Your task to perform on an android device: change alarm snooze length Image 0: 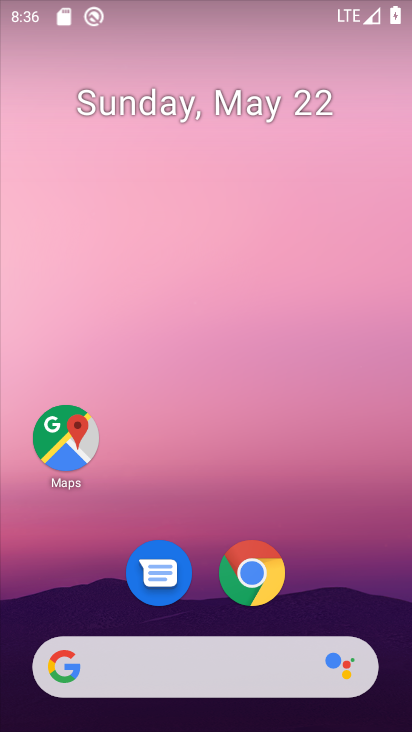
Step 0: click (393, 36)
Your task to perform on an android device: change alarm snooze length Image 1: 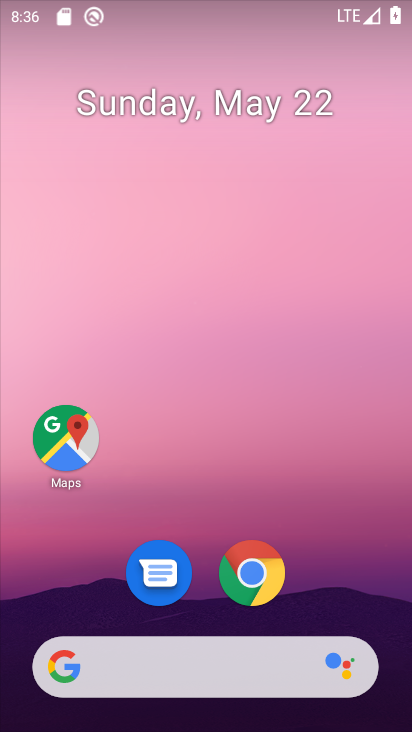
Step 1: drag from (203, 617) to (235, 43)
Your task to perform on an android device: change alarm snooze length Image 2: 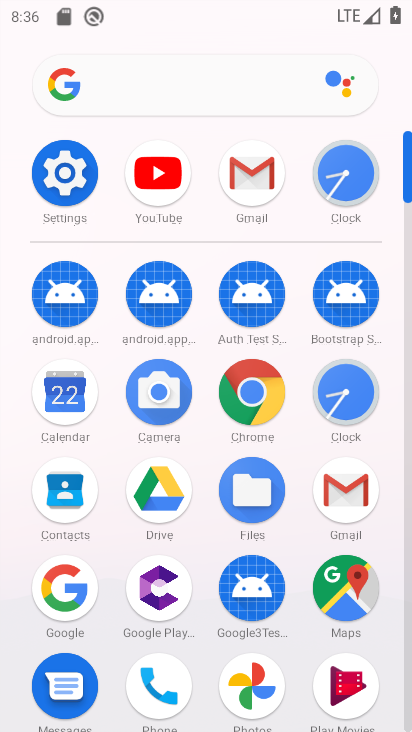
Step 2: click (316, 362)
Your task to perform on an android device: change alarm snooze length Image 3: 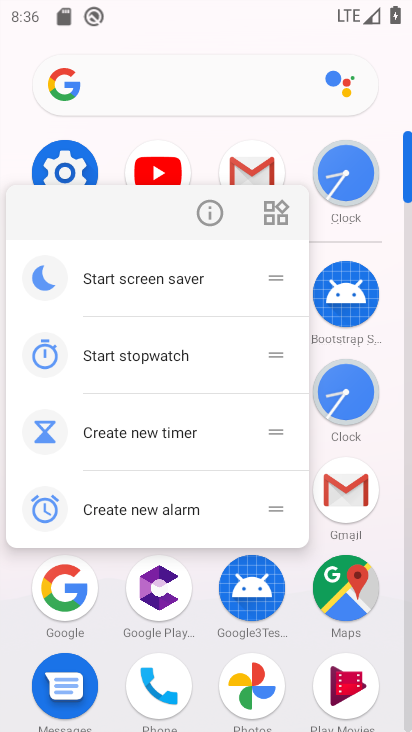
Step 3: click (192, 218)
Your task to perform on an android device: change alarm snooze length Image 4: 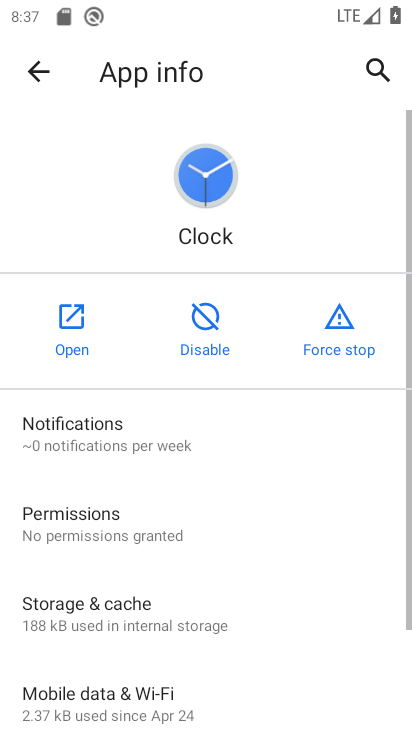
Step 4: click (71, 342)
Your task to perform on an android device: change alarm snooze length Image 5: 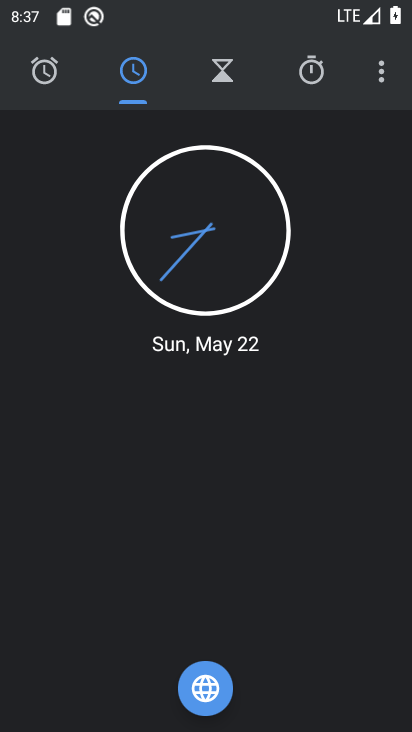
Step 5: click (365, 72)
Your task to perform on an android device: change alarm snooze length Image 6: 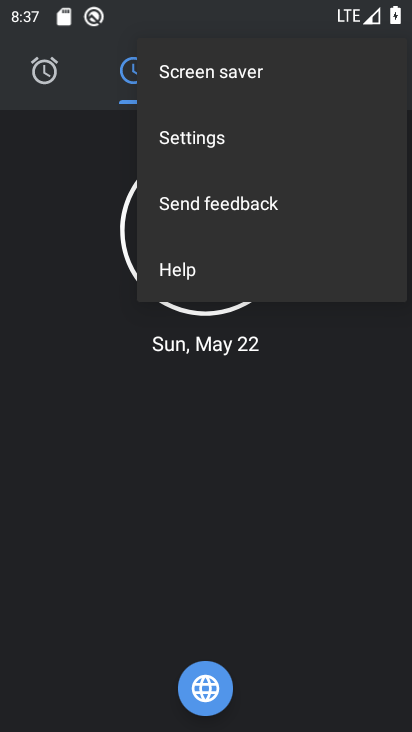
Step 6: click (250, 151)
Your task to perform on an android device: change alarm snooze length Image 7: 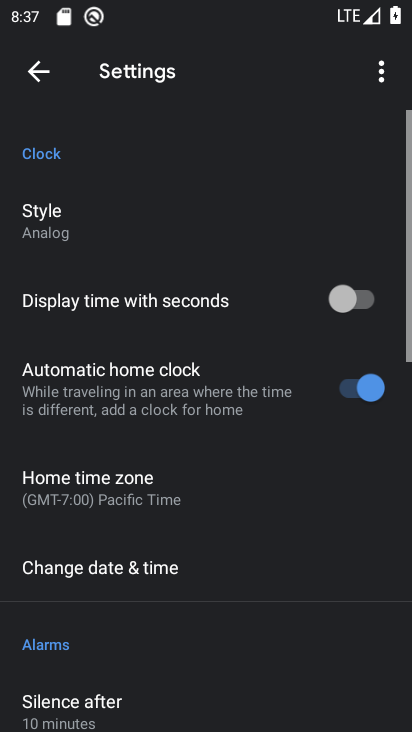
Step 7: drag from (265, 550) to (374, 76)
Your task to perform on an android device: change alarm snooze length Image 8: 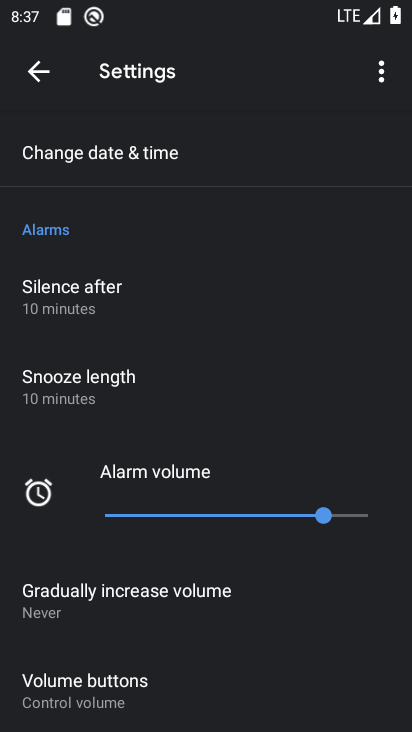
Step 8: click (140, 396)
Your task to perform on an android device: change alarm snooze length Image 9: 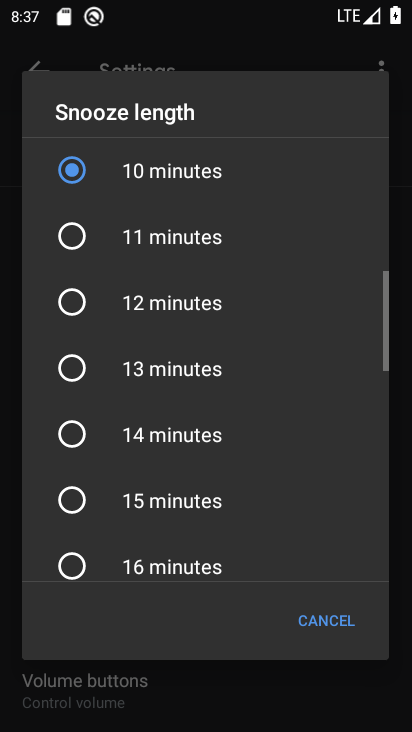
Step 9: click (136, 306)
Your task to perform on an android device: change alarm snooze length Image 10: 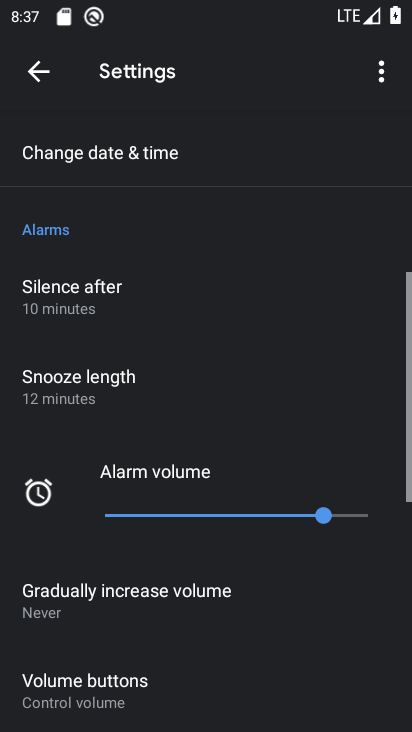
Step 10: task complete